Your task to perform on an android device: Search for flights from Buenos aires to Helsinki Image 0: 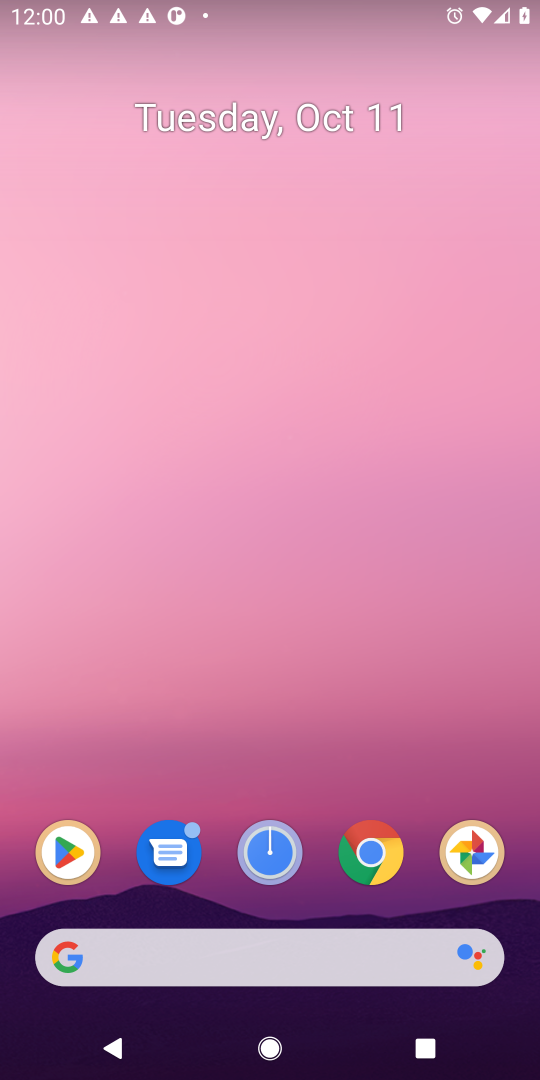
Step 0: click (358, 859)
Your task to perform on an android device: Search for flights from Buenos aires to Helsinki Image 1: 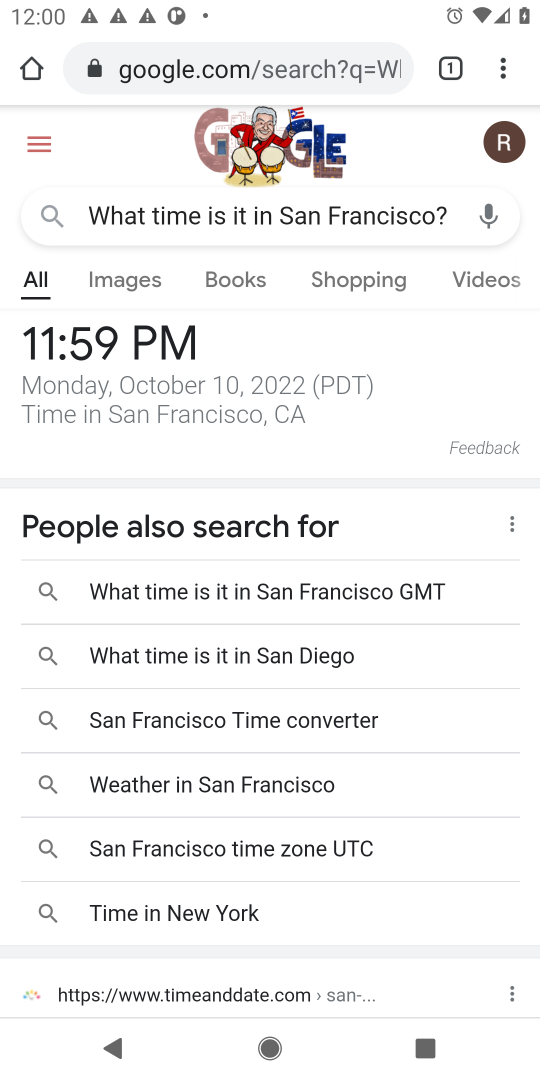
Step 1: click (398, 60)
Your task to perform on an android device: Search for flights from Buenos aires to Helsinki Image 2: 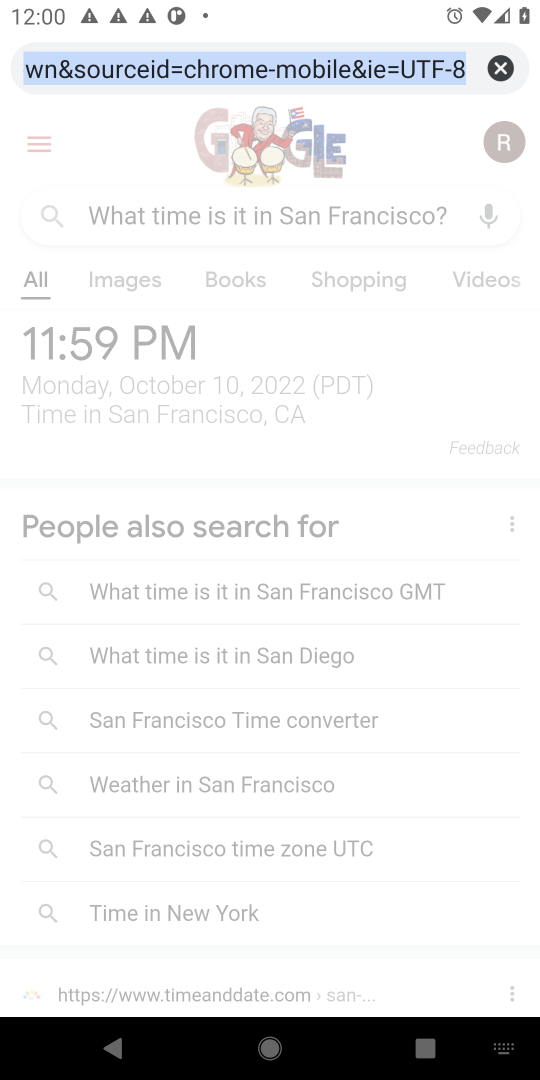
Step 2: type "flights from Buenos aires to Helsinki"
Your task to perform on an android device: Search for flights from Buenos aires to Helsinki Image 3: 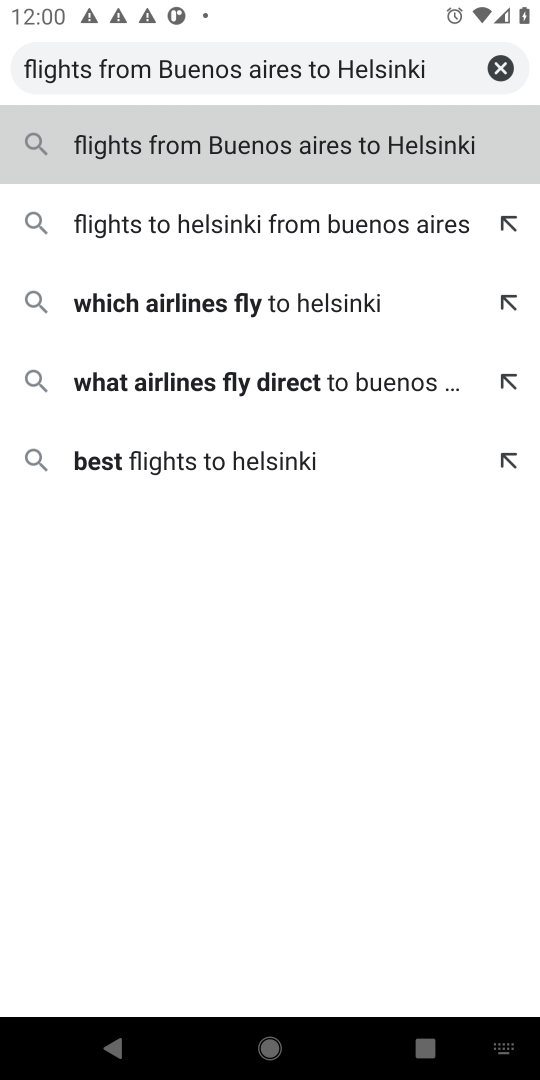
Step 3: click (189, 127)
Your task to perform on an android device: Search for flights from Buenos aires to Helsinki Image 4: 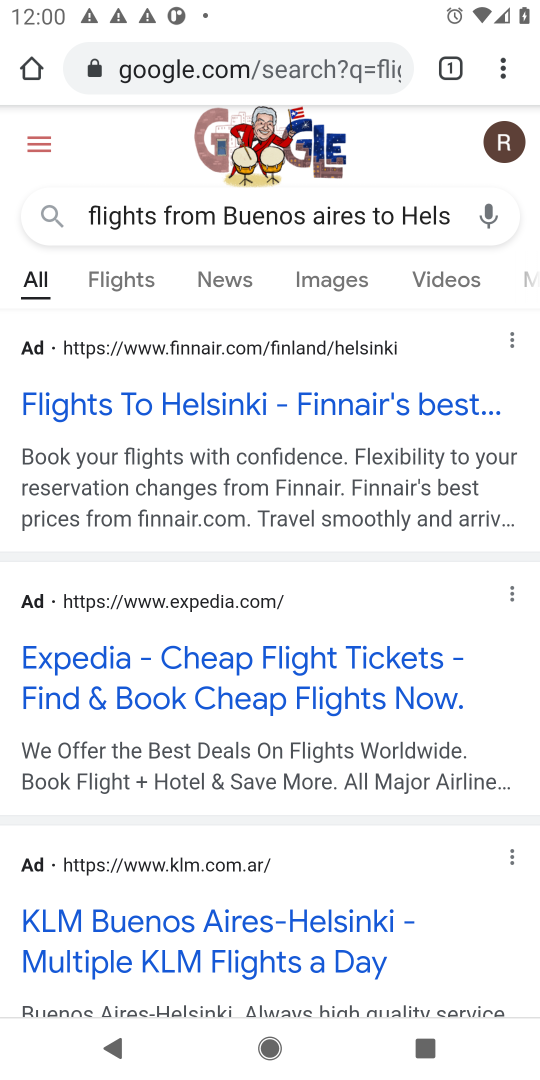
Step 4: click (129, 287)
Your task to perform on an android device: Search for flights from Buenos aires to Helsinki Image 5: 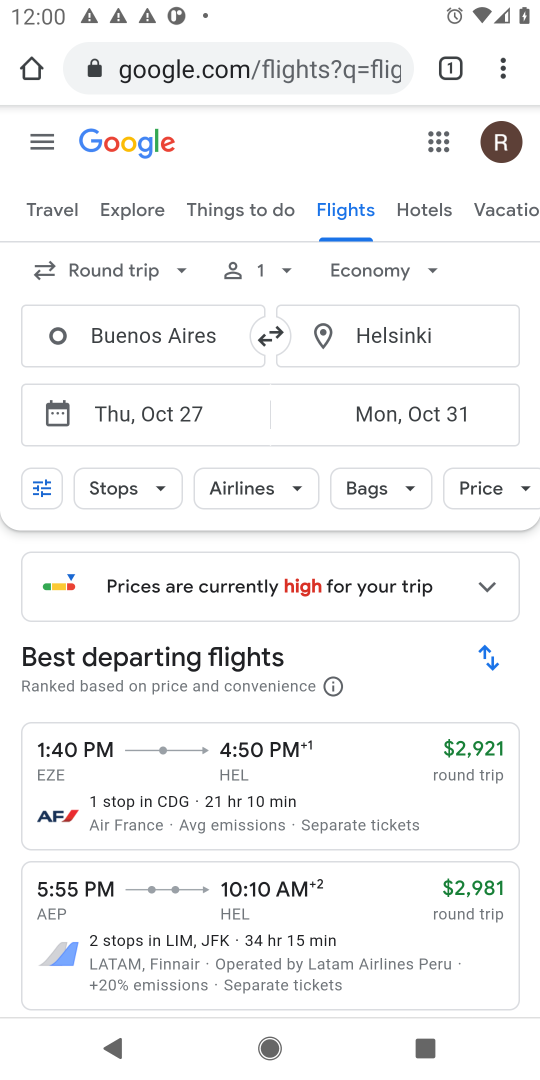
Step 5: task complete